Your task to perform on an android device: Search for a new bike on Walmart. Image 0: 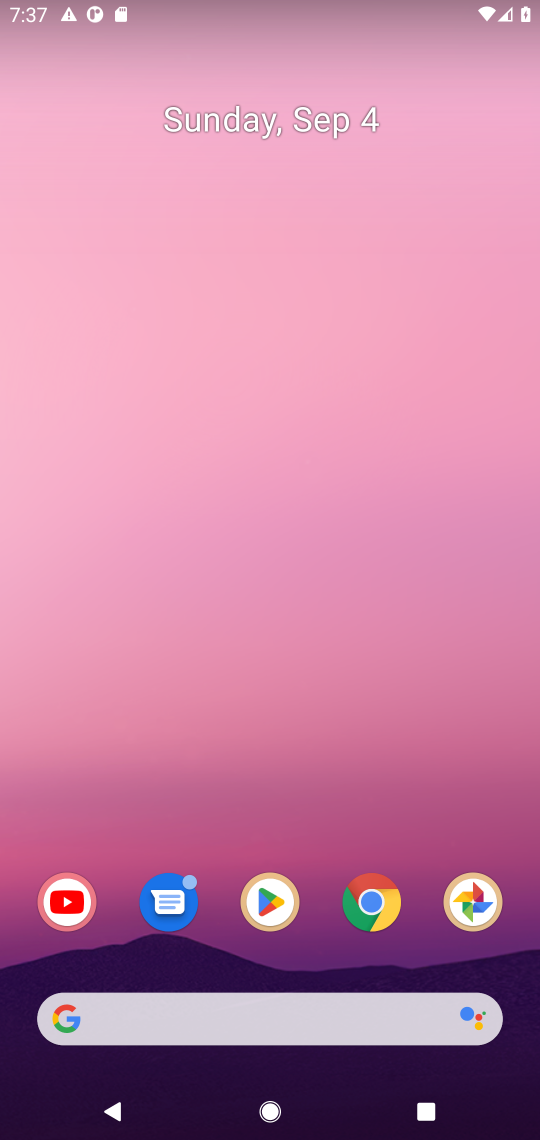
Step 0: click (69, 904)
Your task to perform on an android device: Search for a new bike on Walmart. Image 1: 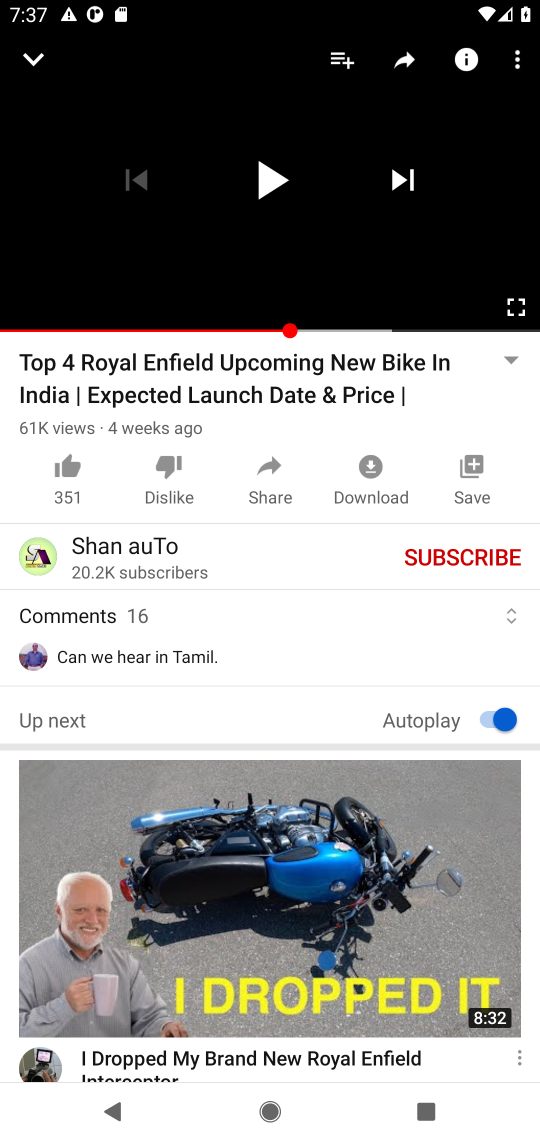
Step 1: click (259, 188)
Your task to perform on an android device: Search for a new bike on Walmart. Image 2: 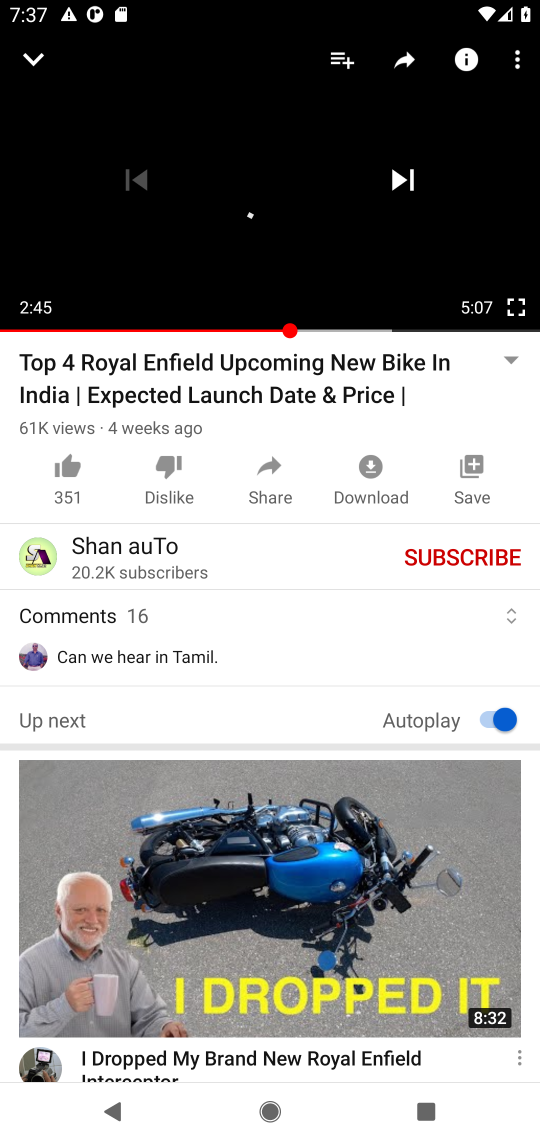
Step 2: task complete